Your task to perform on an android device: Go to accessibility settings Image 0: 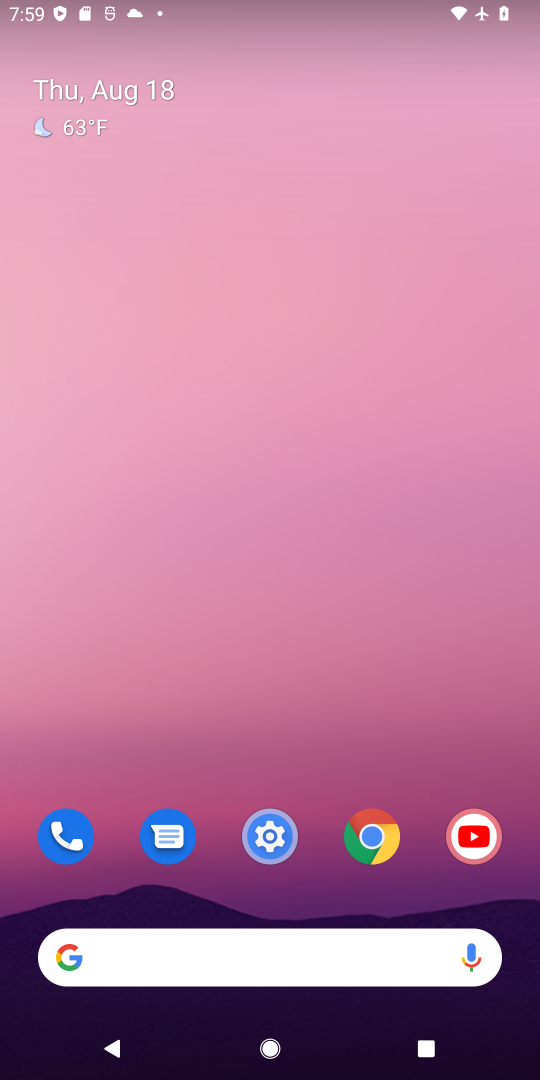
Step 0: drag from (384, 723) to (394, 4)
Your task to perform on an android device: Go to accessibility settings Image 1: 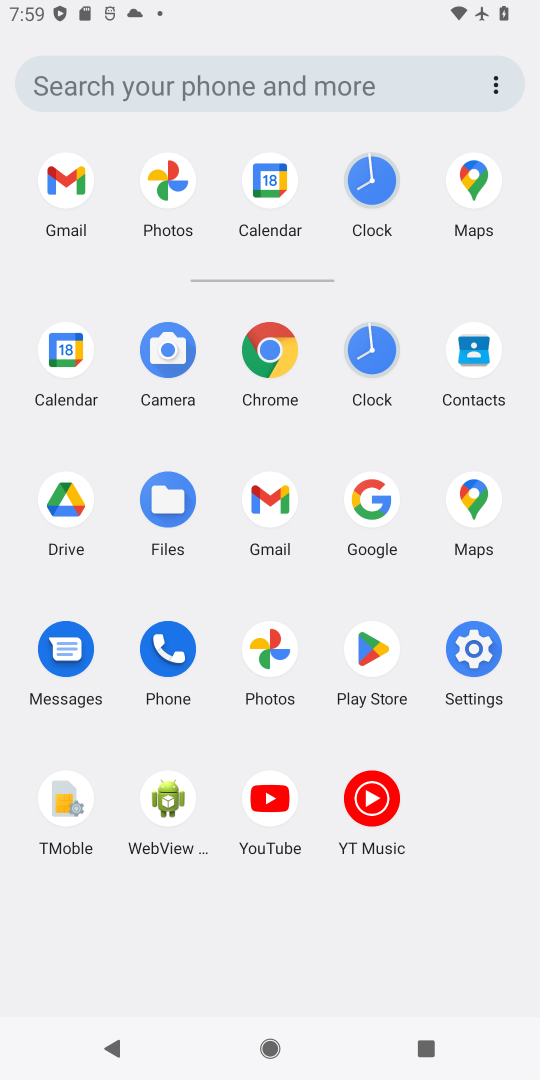
Step 1: click (471, 653)
Your task to perform on an android device: Go to accessibility settings Image 2: 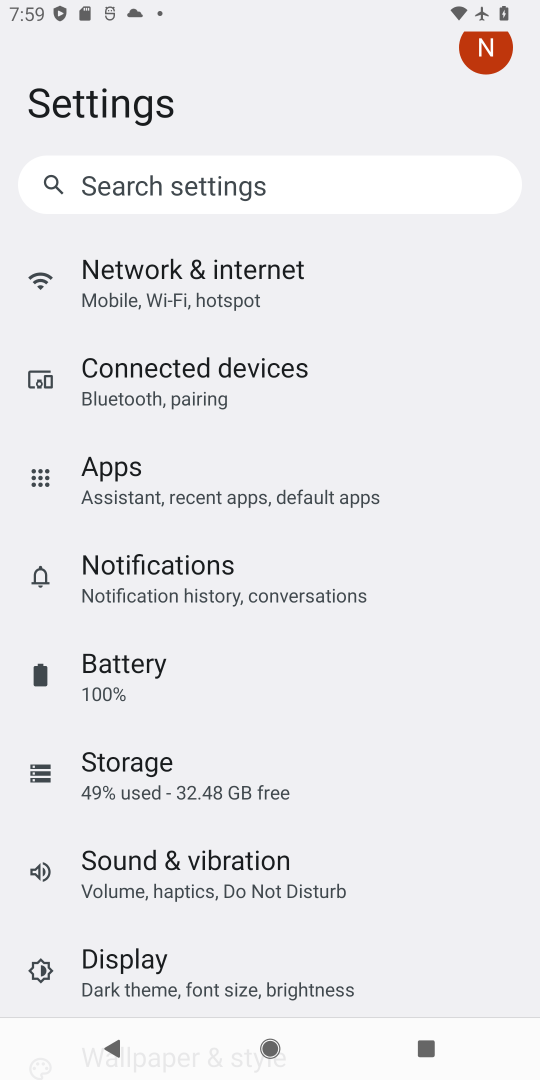
Step 2: drag from (358, 887) to (383, 209)
Your task to perform on an android device: Go to accessibility settings Image 3: 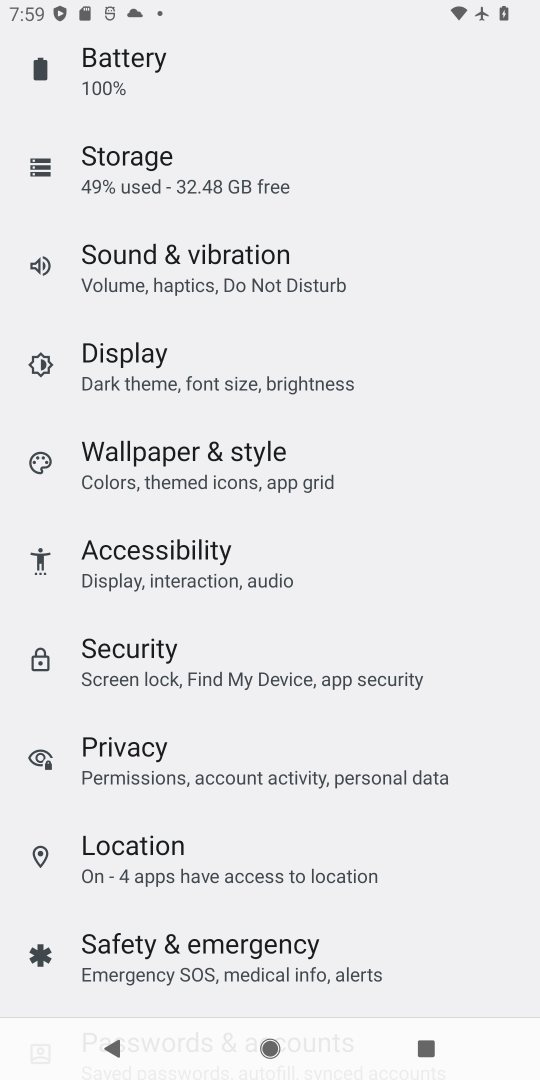
Step 3: click (213, 569)
Your task to perform on an android device: Go to accessibility settings Image 4: 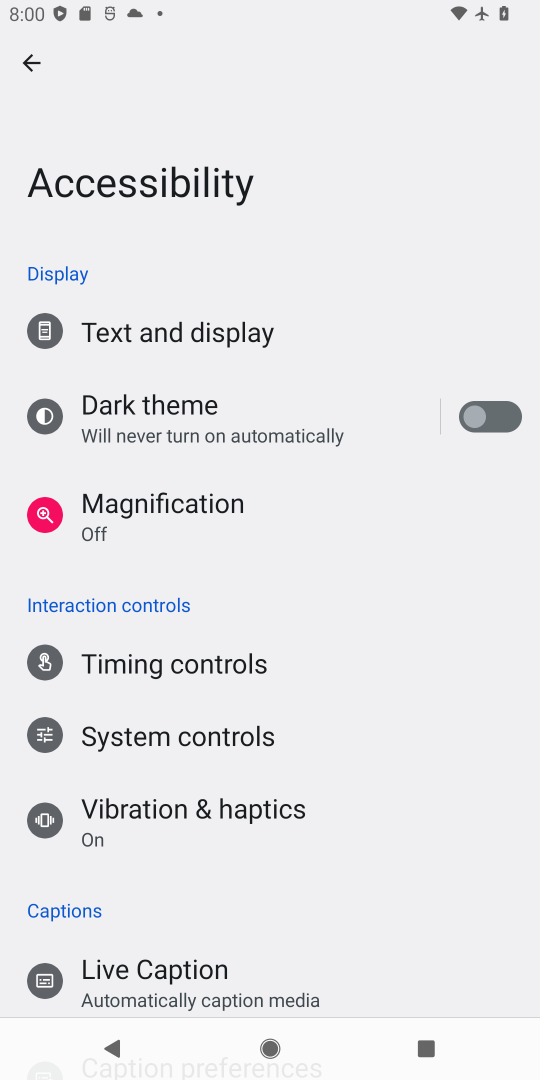
Step 4: task complete